Your task to perform on an android device: Open Google Chrome Image 0: 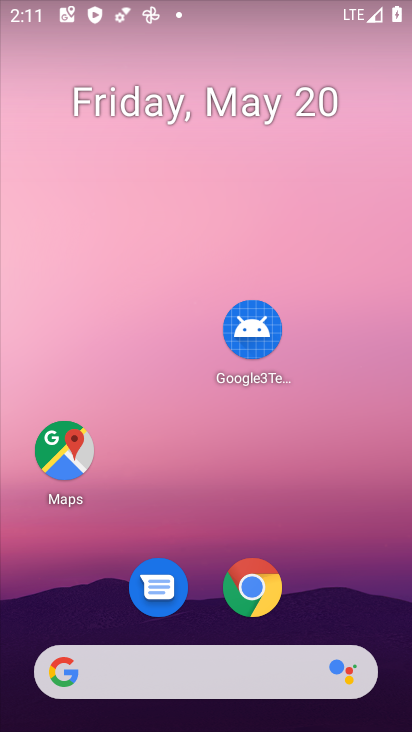
Step 0: click (249, 588)
Your task to perform on an android device: Open Google Chrome Image 1: 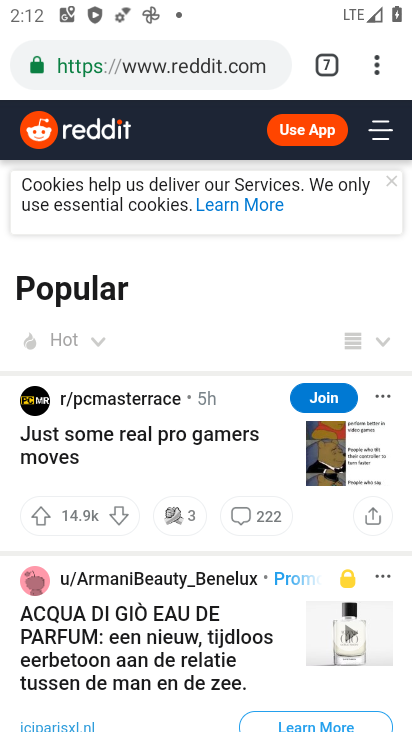
Step 1: task complete